Your task to perform on an android device: turn notification dots on Image 0: 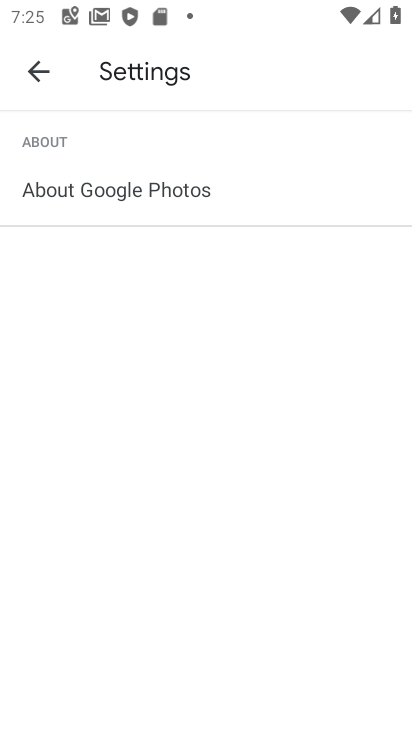
Step 0: press home button
Your task to perform on an android device: turn notification dots on Image 1: 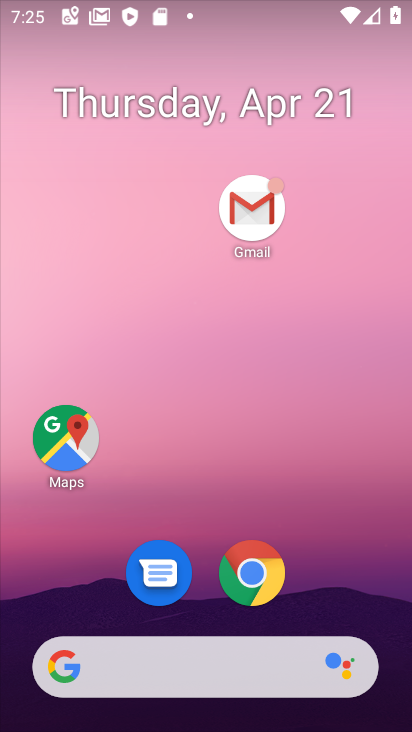
Step 1: drag from (362, 435) to (350, 131)
Your task to perform on an android device: turn notification dots on Image 2: 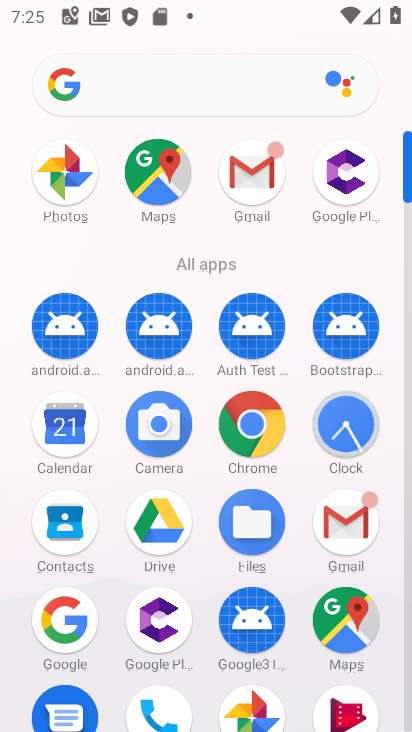
Step 2: drag from (399, 545) to (352, 205)
Your task to perform on an android device: turn notification dots on Image 3: 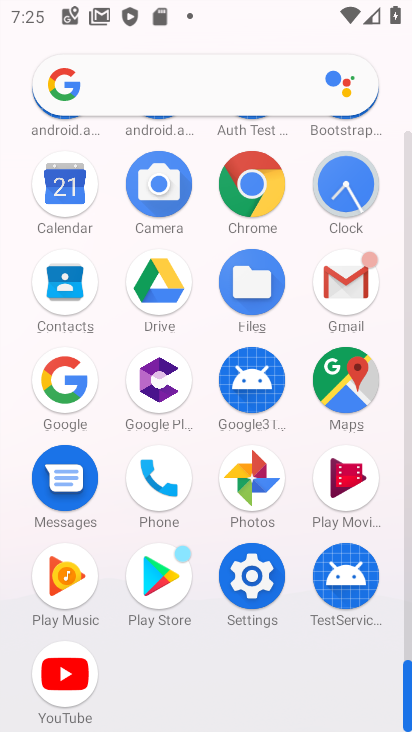
Step 3: click (256, 586)
Your task to perform on an android device: turn notification dots on Image 4: 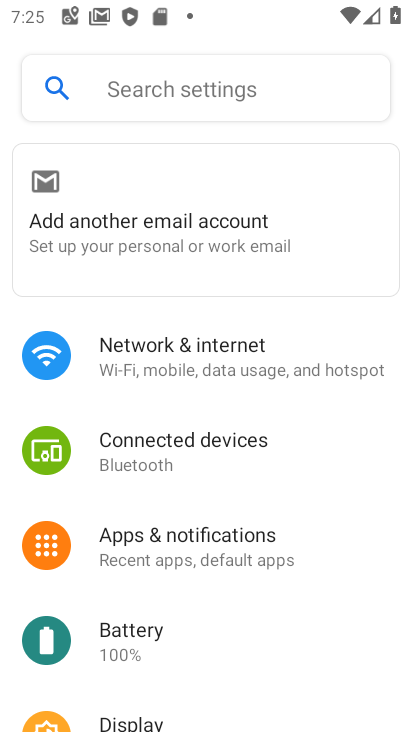
Step 4: click (239, 556)
Your task to perform on an android device: turn notification dots on Image 5: 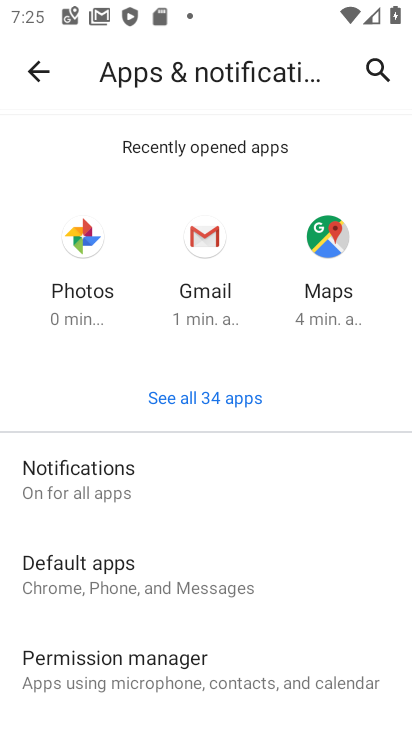
Step 5: click (80, 470)
Your task to perform on an android device: turn notification dots on Image 6: 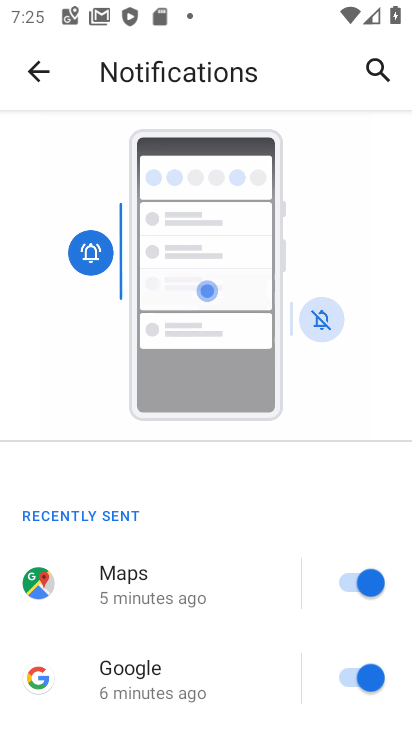
Step 6: drag from (183, 638) to (145, 299)
Your task to perform on an android device: turn notification dots on Image 7: 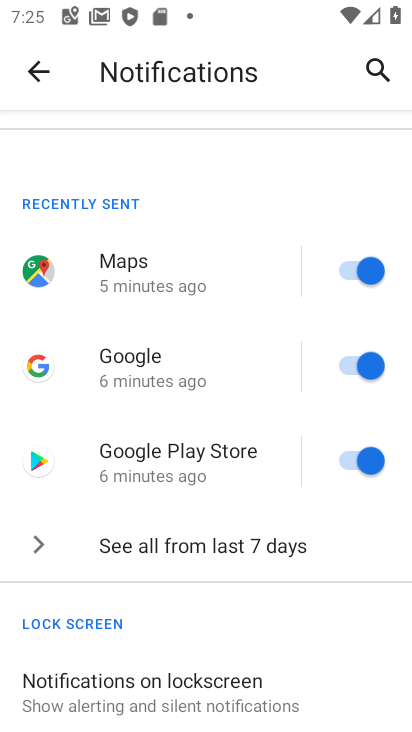
Step 7: drag from (184, 551) to (157, 206)
Your task to perform on an android device: turn notification dots on Image 8: 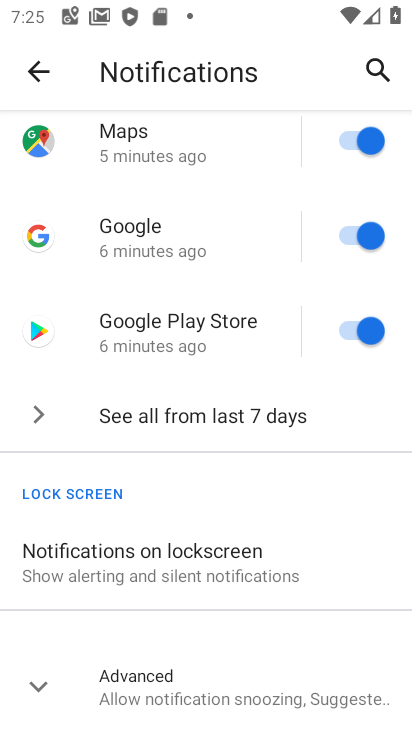
Step 8: drag from (218, 587) to (199, 300)
Your task to perform on an android device: turn notification dots on Image 9: 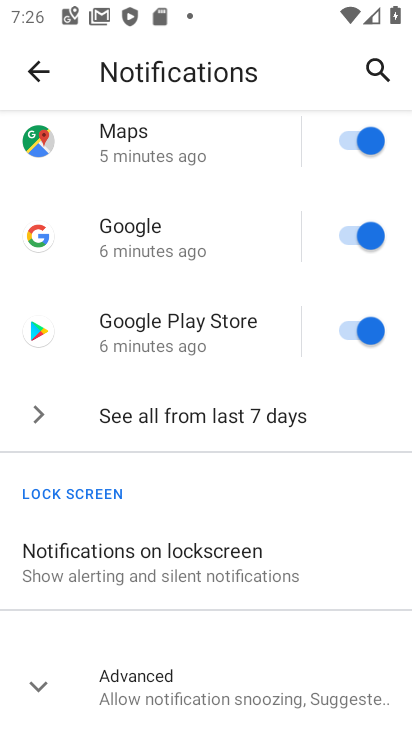
Step 9: drag from (176, 624) to (175, 261)
Your task to perform on an android device: turn notification dots on Image 10: 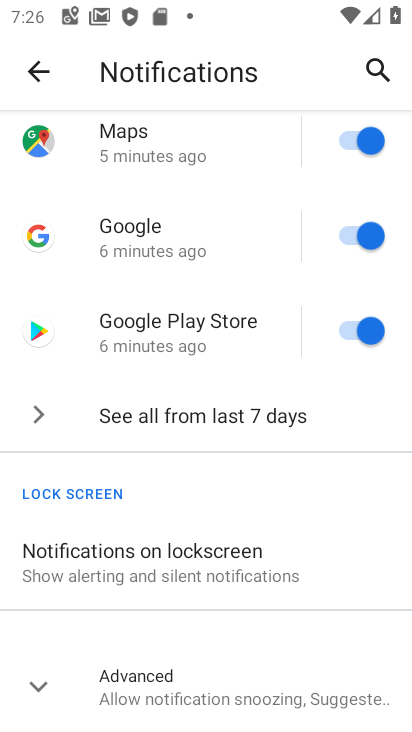
Step 10: click (160, 678)
Your task to perform on an android device: turn notification dots on Image 11: 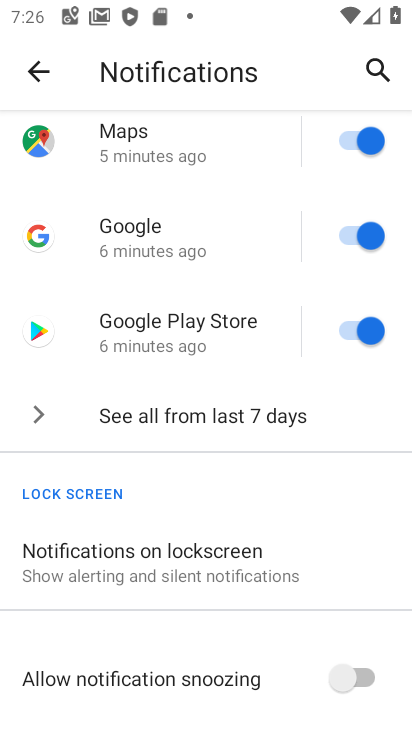
Step 11: task complete